Your task to perform on an android device: What is the news today? Image 0: 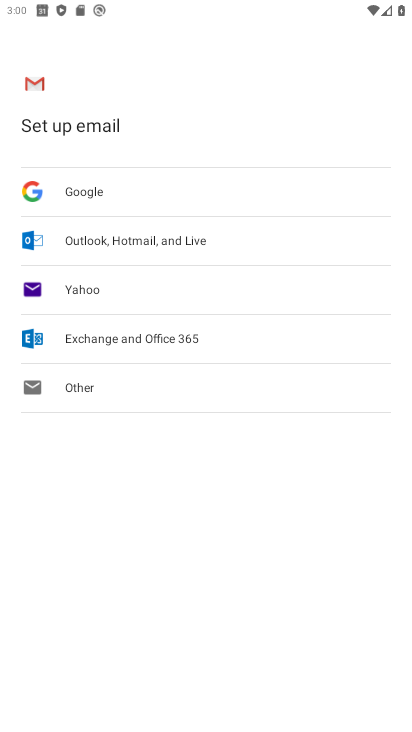
Step 0: press home button
Your task to perform on an android device: What is the news today? Image 1: 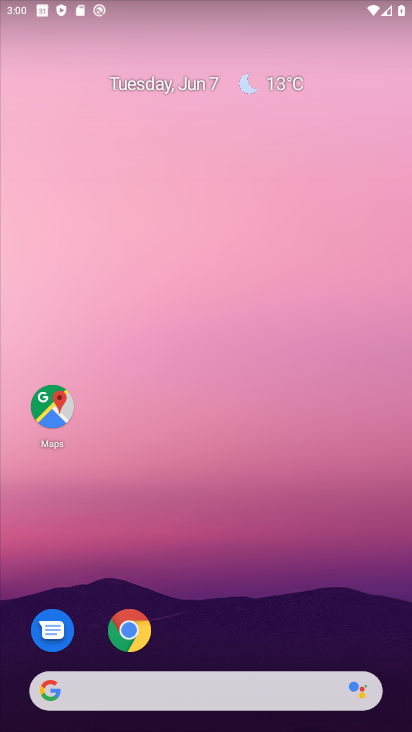
Step 1: drag from (200, 676) to (226, 279)
Your task to perform on an android device: What is the news today? Image 2: 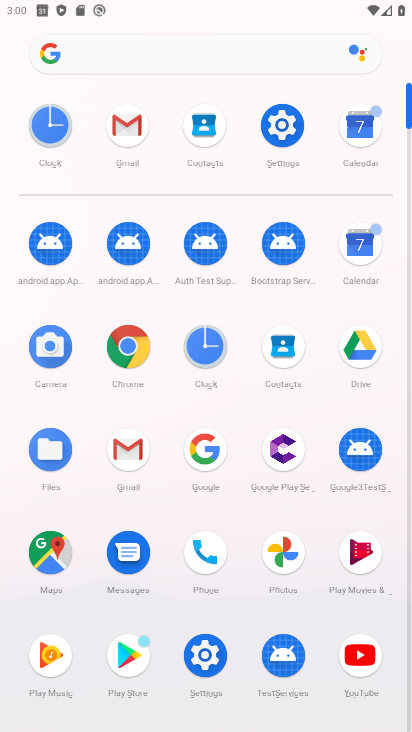
Step 2: click (187, 459)
Your task to perform on an android device: What is the news today? Image 3: 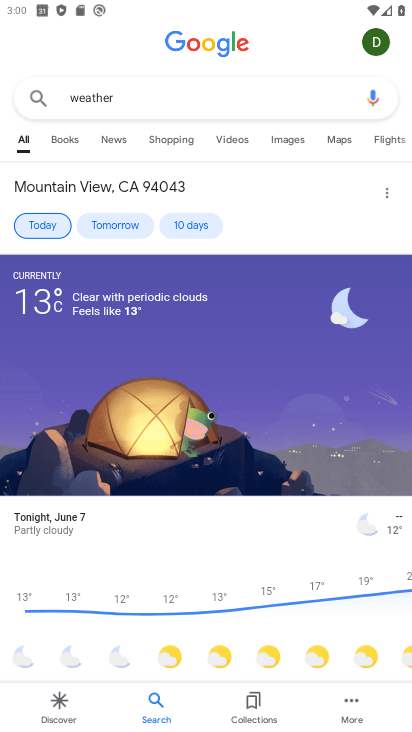
Step 3: click (222, 33)
Your task to perform on an android device: What is the news today? Image 4: 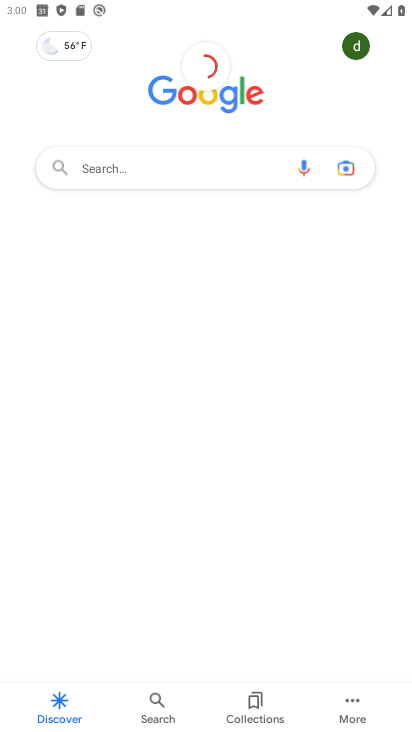
Step 4: task complete